Your task to perform on an android device: find photos in the google photos app Image 0: 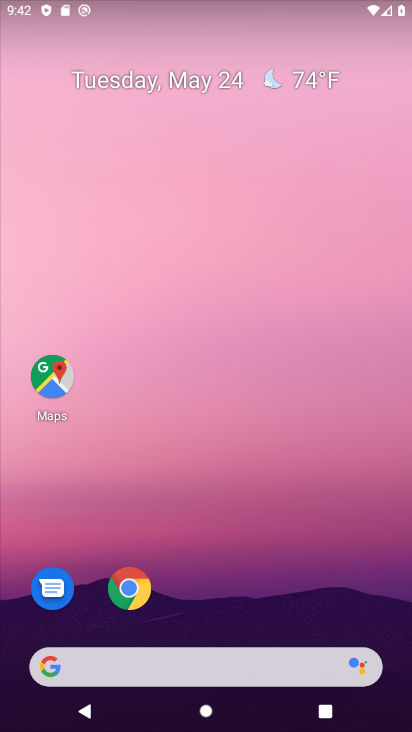
Step 0: drag from (173, 614) to (165, 126)
Your task to perform on an android device: find photos in the google photos app Image 1: 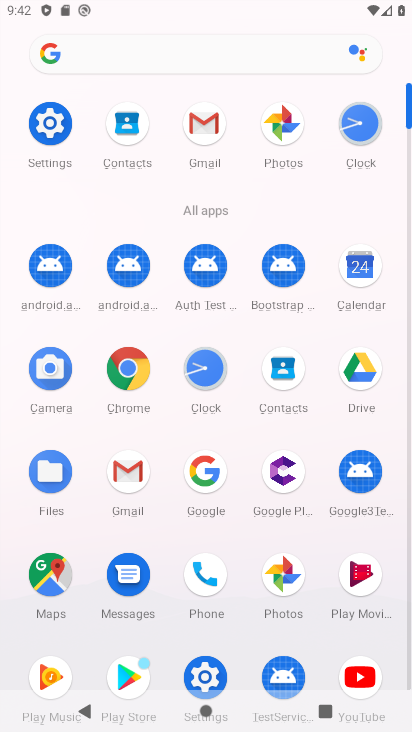
Step 1: click (283, 122)
Your task to perform on an android device: find photos in the google photos app Image 2: 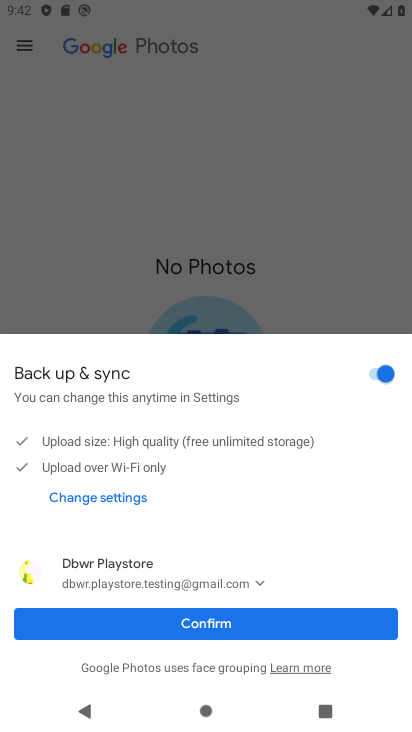
Step 2: click (143, 619)
Your task to perform on an android device: find photos in the google photos app Image 3: 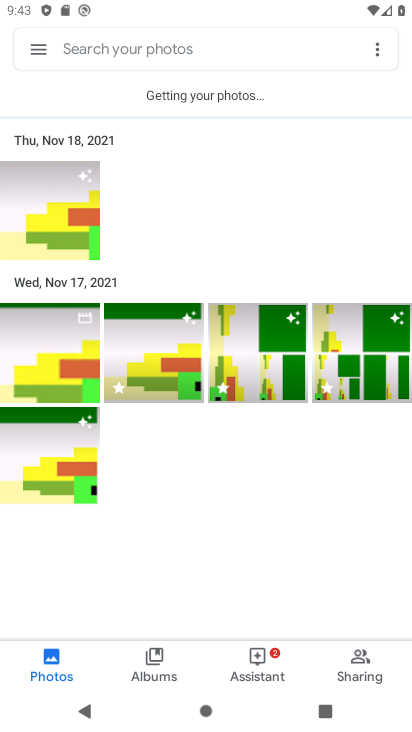
Step 3: task complete